Your task to perform on an android device: allow cookies in the chrome app Image 0: 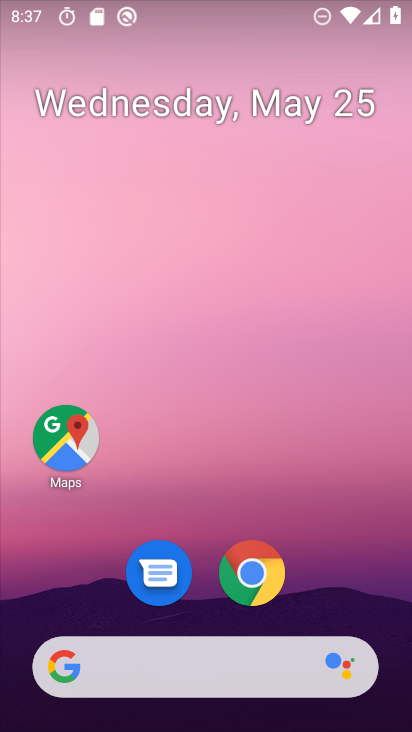
Step 0: click (244, 576)
Your task to perform on an android device: allow cookies in the chrome app Image 1: 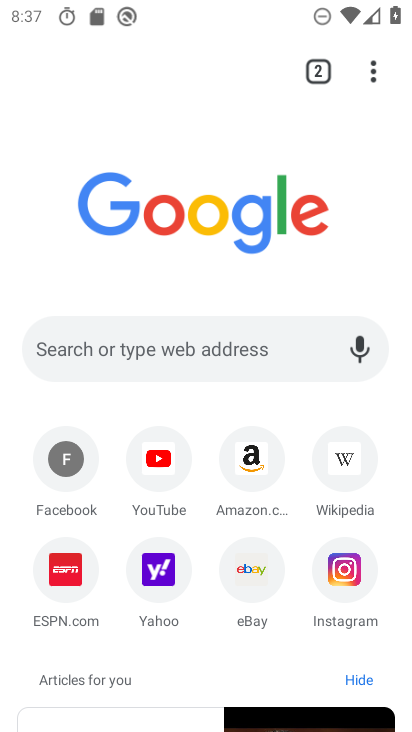
Step 1: click (373, 60)
Your task to perform on an android device: allow cookies in the chrome app Image 2: 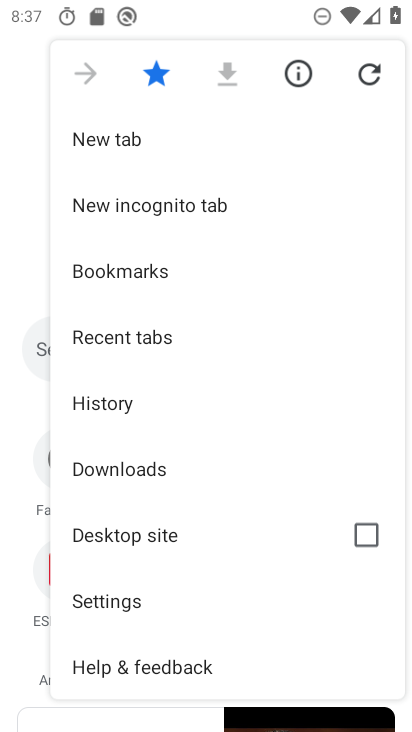
Step 2: click (116, 600)
Your task to perform on an android device: allow cookies in the chrome app Image 3: 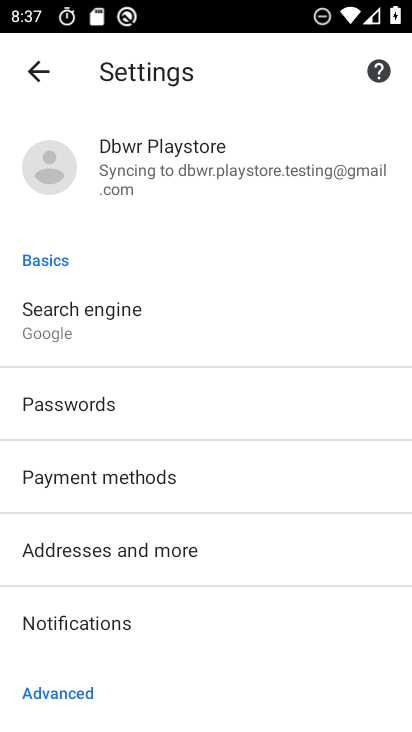
Step 3: drag from (200, 684) to (188, 371)
Your task to perform on an android device: allow cookies in the chrome app Image 4: 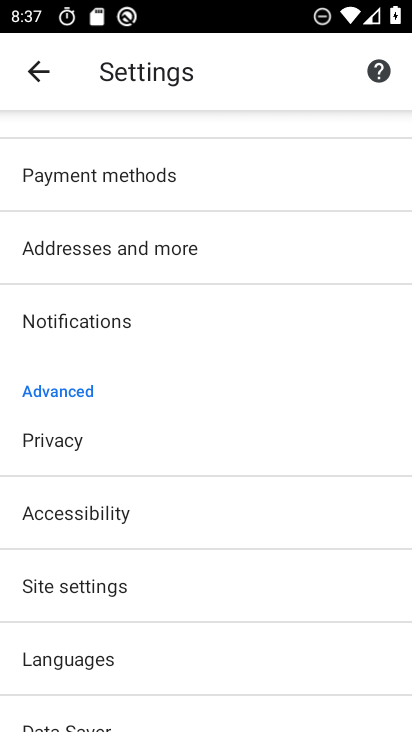
Step 4: drag from (174, 645) to (192, 380)
Your task to perform on an android device: allow cookies in the chrome app Image 5: 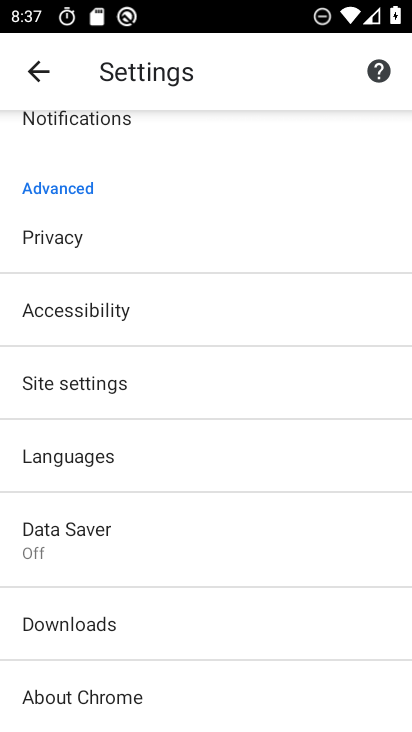
Step 5: drag from (255, 668) to (267, 315)
Your task to perform on an android device: allow cookies in the chrome app Image 6: 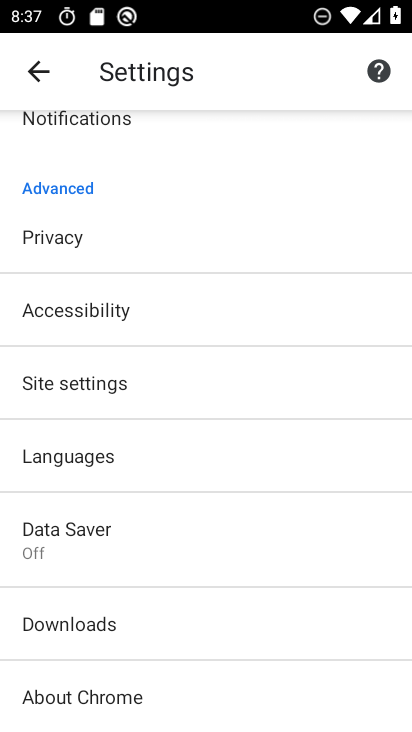
Step 6: click (58, 385)
Your task to perform on an android device: allow cookies in the chrome app Image 7: 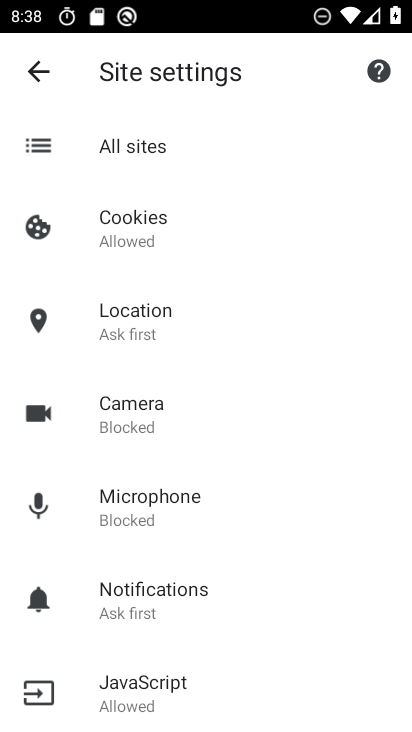
Step 7: click (106, 222)
Your task to perform on an android device: allow cookies in the chrome app Image 8: 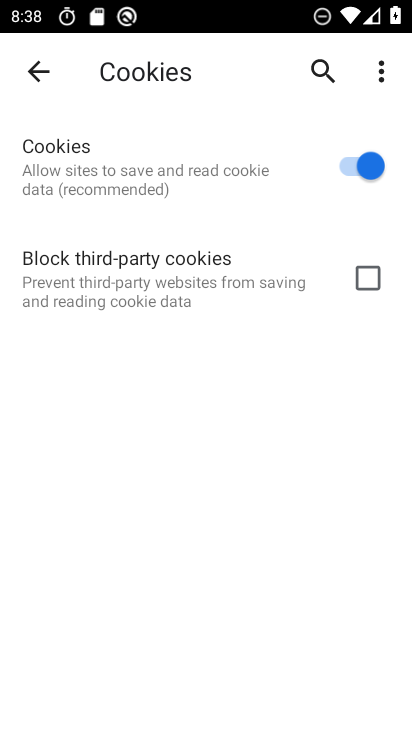
Step 8: task complete